Your task to perform on an android device: Open privacy settings Image 0: 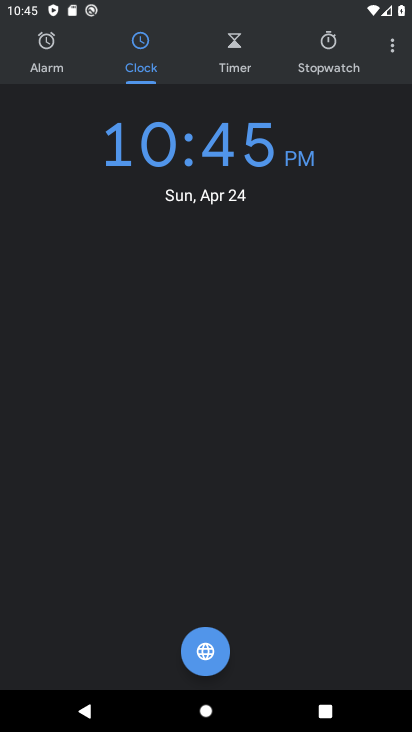
Step 0: press home button
Your task to perform on an android device: Open privacy settings Image 1: 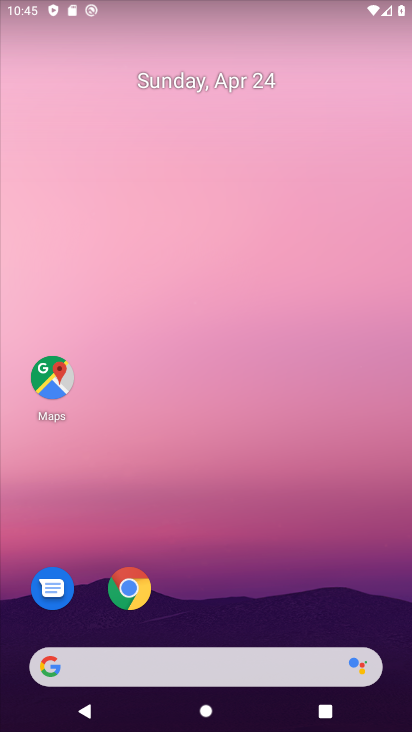
Step 1: drag from (263, 572) to (237, 96)
Your task to perform on an android device: Open privacy settings Image 2: 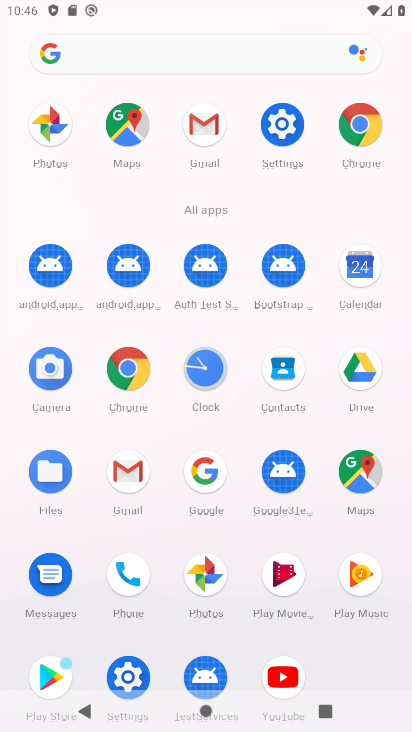
Step 2: click (281, 127)
Your task to perform on an android device: Open privacy settings Image 3: 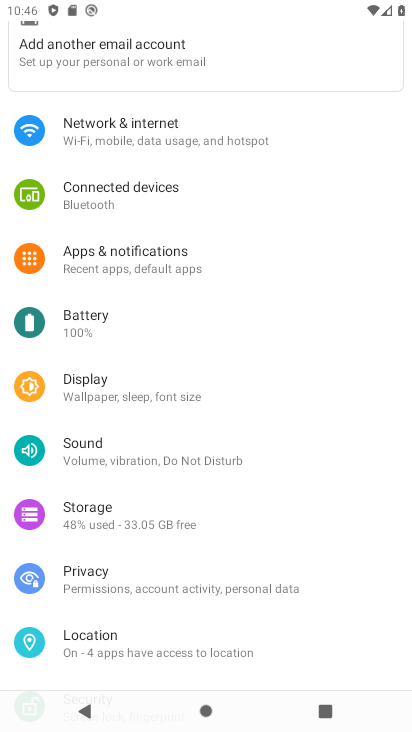
Step 3: click (177, 583)
Your task to perform on an android device: Open privacy settings Image 4: 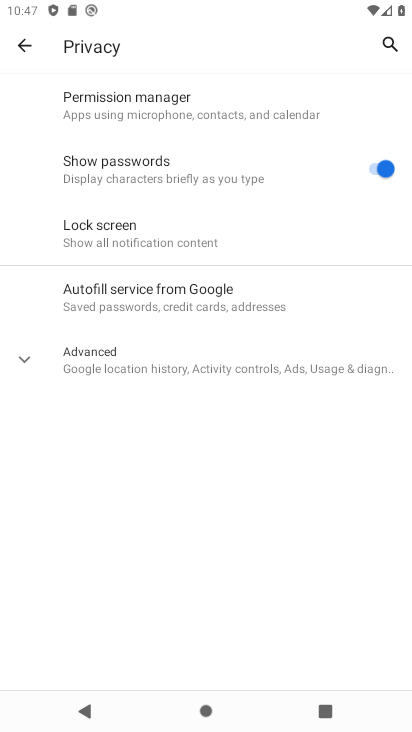
Step 4: task complete